Your task to perform on an android device: all mails in gmail Image 0: 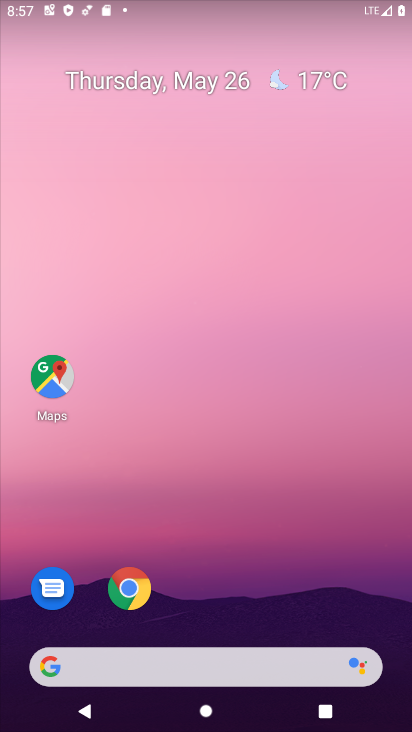
Step 0: drag from (398, 620) to (342, 92)
Your task to perform on an android device: all mails in gmail Image 1: 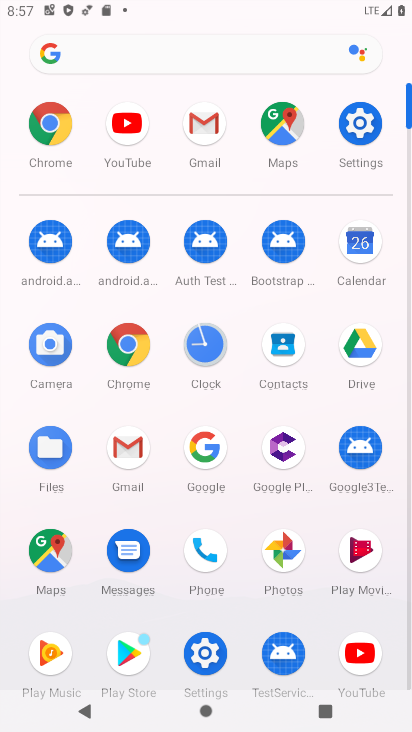
Step 1: click (408, 666)
Your task to perform on an android device: all mails in gmail Image 2: 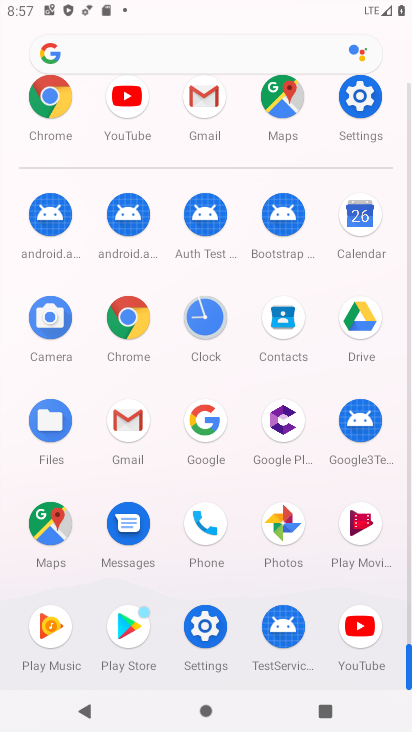
Step 2: click (126, 423)
Your task to perform on an android device: all mails in gmail Image 3: 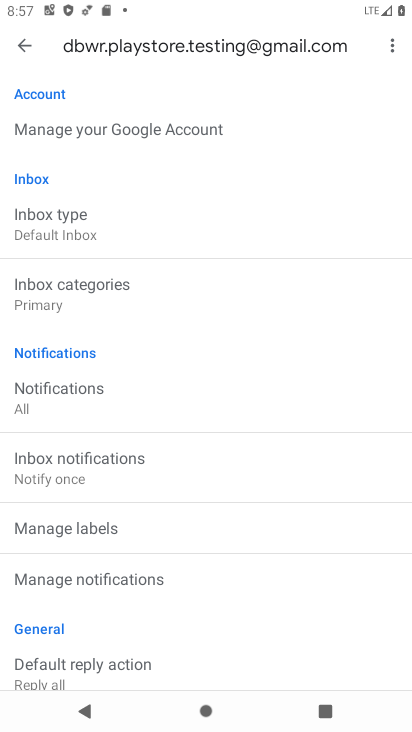
Step 3: drag from (293, 214) to (254, 413)
Your task to perform on an android device: all mails in gmail Image 4: 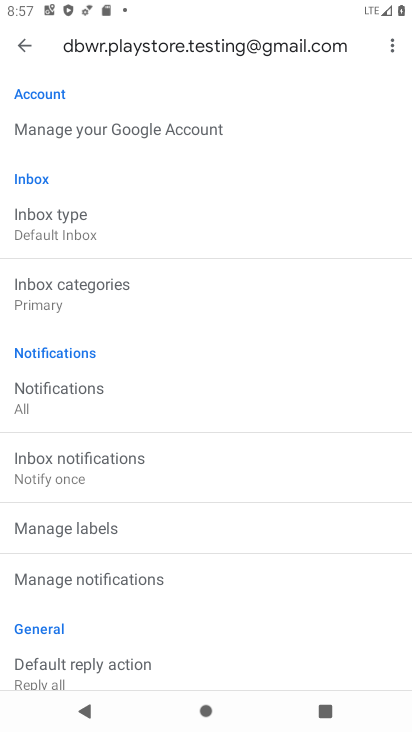
Step 4: press back button
Your task to perform on an android device: all mails in gmail Image 5: 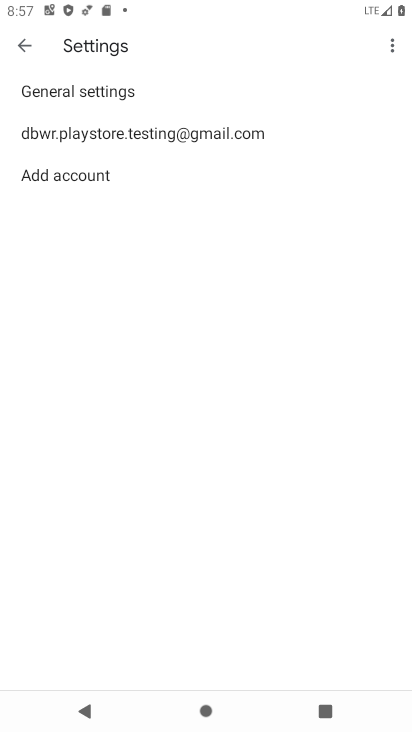
Step 5: press back button
Your task to perform on an android device: all mails in gmail Image 6: 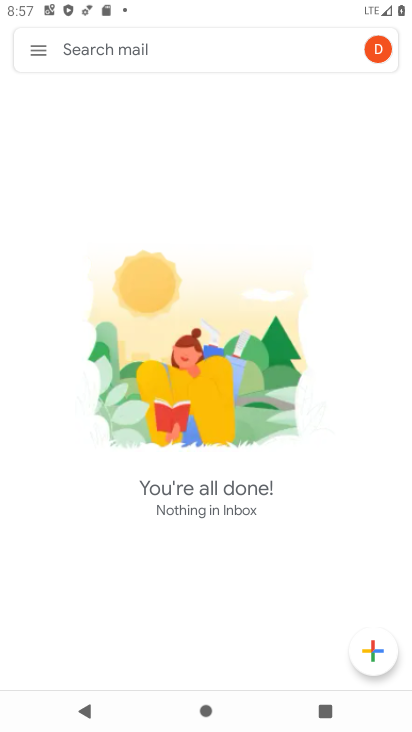
Step 6: click (36, 49)
Your task to perform on an android device: all mails in gmail Image 7: 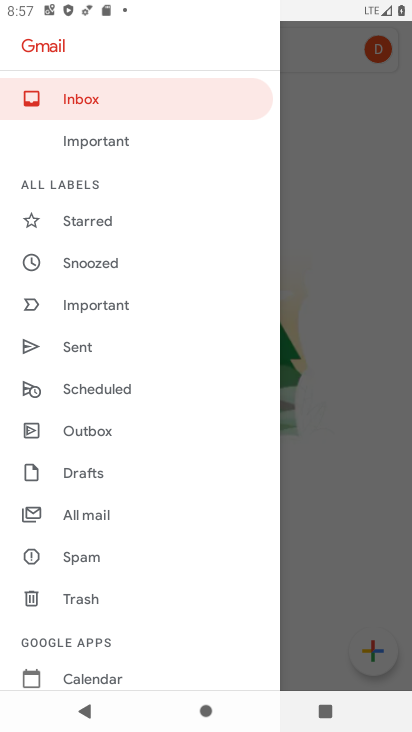
Step 7: click (99, 518)
Your task to perform on an android device: all mails in gmail Image 8: 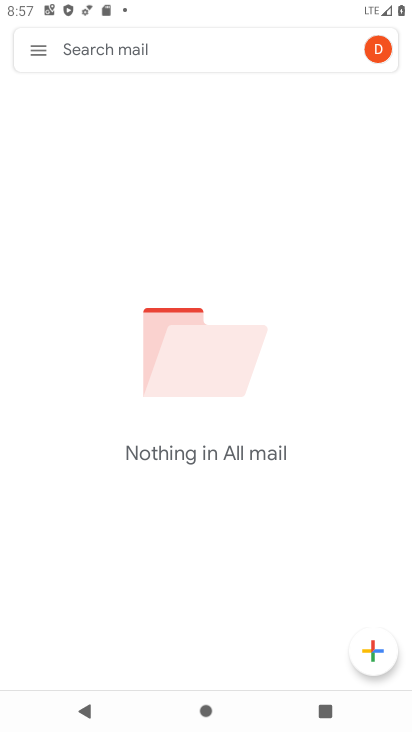
Step 8: task complete